Your task to perform on an android device: Open calendar and show me the second week of next month Image 0: 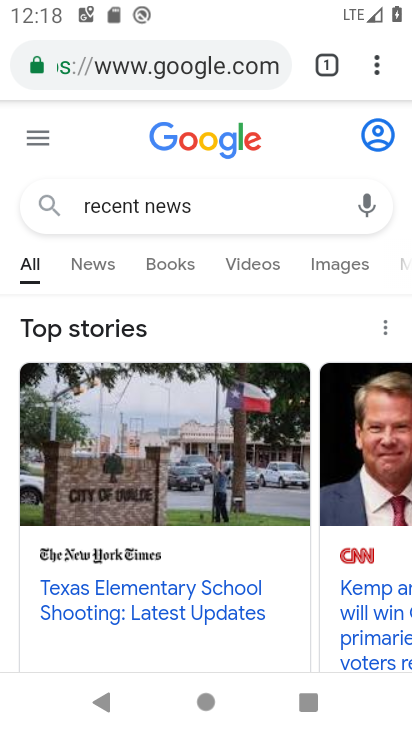
Step 0: press home button
Your task to perform on an android device: Open calendar and show me the second week of next month Image 1: 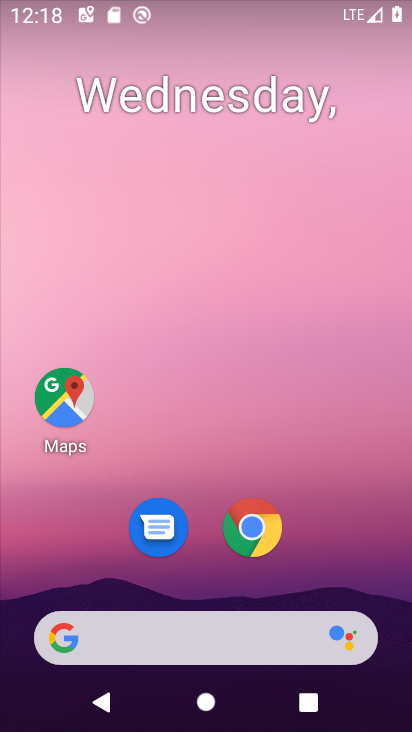
Step 1: drag from (225, 656) to (339, 12)
Your task to perform on an android device: Open calendar and show me the second week of next month Image 2: 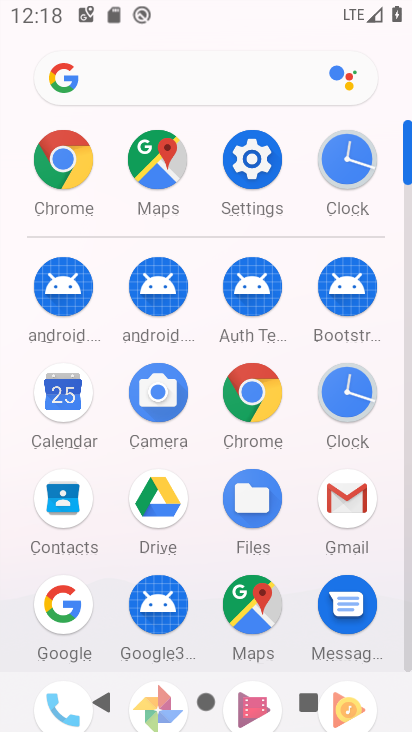
Step 2: click (64, 386)
Your task to perform on an android device: Open calendar and show me the second week of next month Image 3: 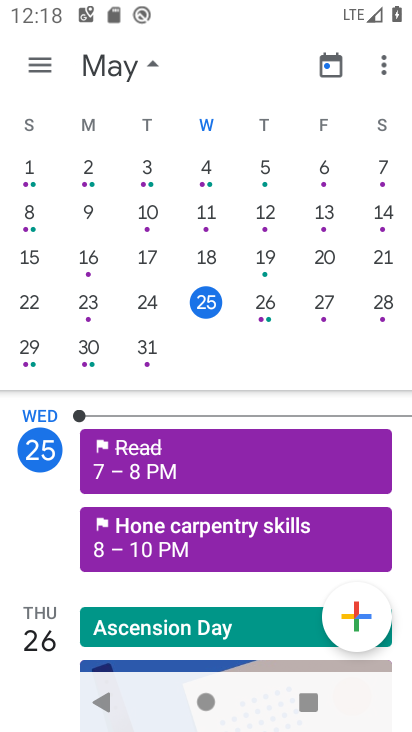
Step 3: drag from (355, 257) to (6, 299)
Your task to perform on an android device: Open calendar and show me the second week of next month Image 4: 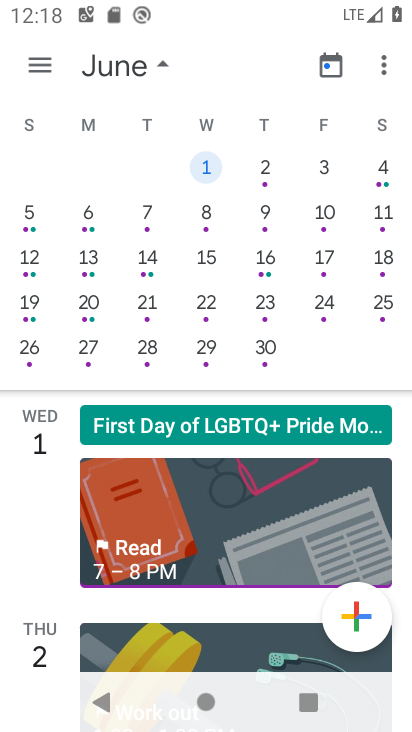
Step 4: click (267, 217)
Your task to perform on an android device: Open calendar and show me the second week of next month Image 5: 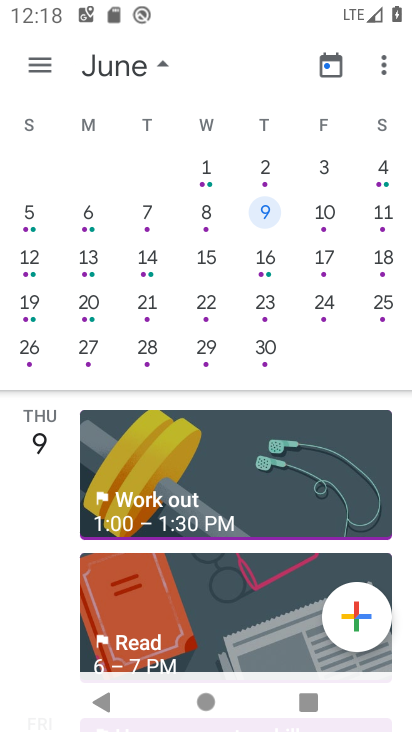
Step 5: click (41, 57)
Your task to perform on an android device: Open calendar and show me the second week of next month Image 6: 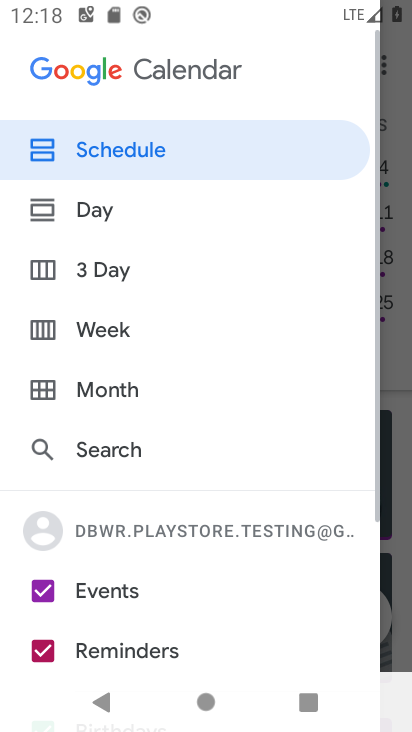
Step 6: click (126, 320)
Your task to perform on an android device: Open calendar and show me the second week of next month Image 7: 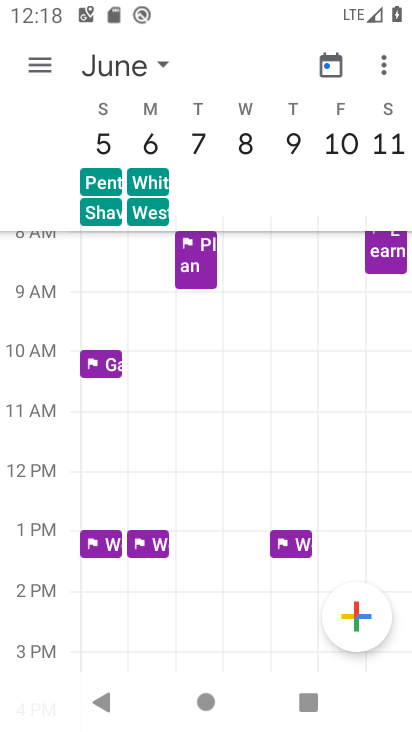
Step 7: task complete